Your task to perform on an android device: check data usage Image 0: 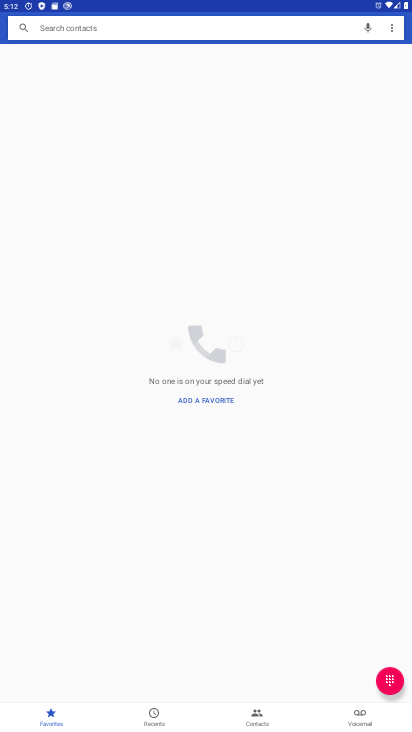
Step 0: press home button
Your task to perform on an android device: check data usage Image 1: 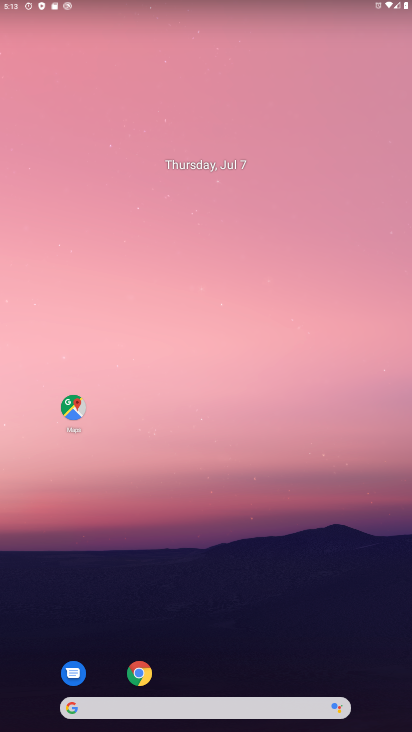
Step 1: drag from (103, 719) to (123, 106)
Your task to perform on an android device: check data usage Image 2: 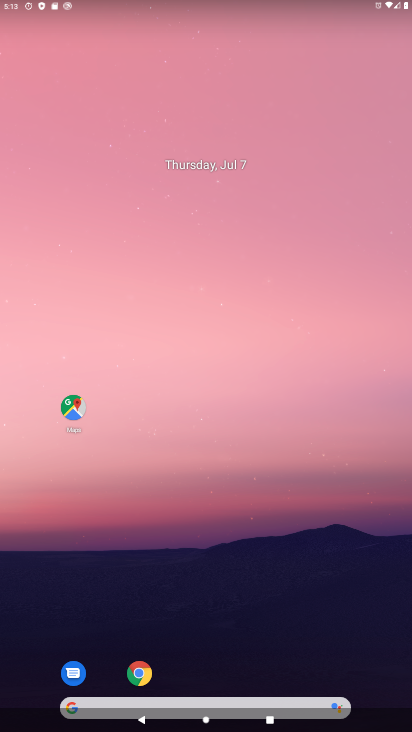
Step 2: drag from (219, 692) to (248, 65)
Your task to perform on an android device: check data usage Image 3: 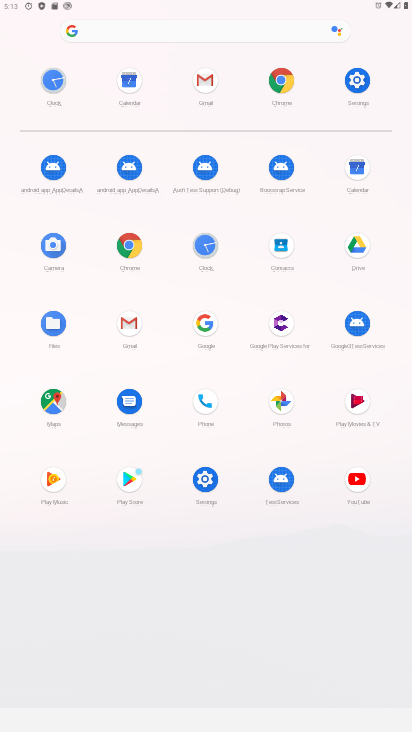
Step 3: click (360, 75)
Your task to perform on an android device: check data usage Image 4: 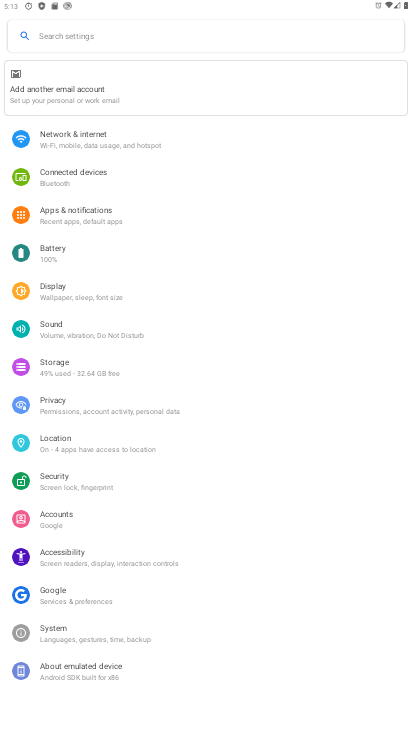
Step 4: click (89, 131)
Your task to perform on an android device: check data usage Image 5: 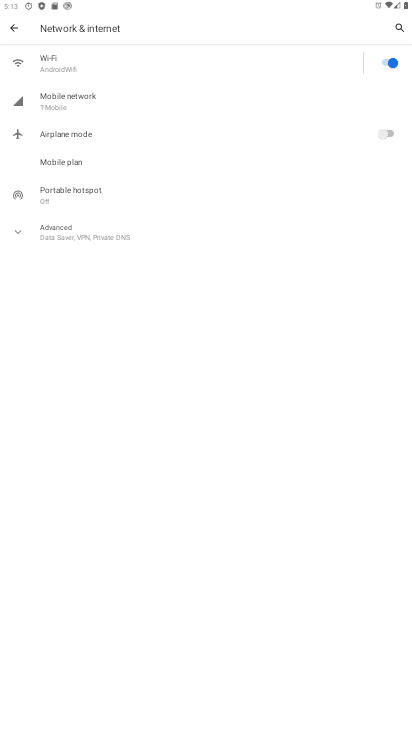
Step 5: click (106, 101)
Your task to perform on an android device: check data usage Image 6: 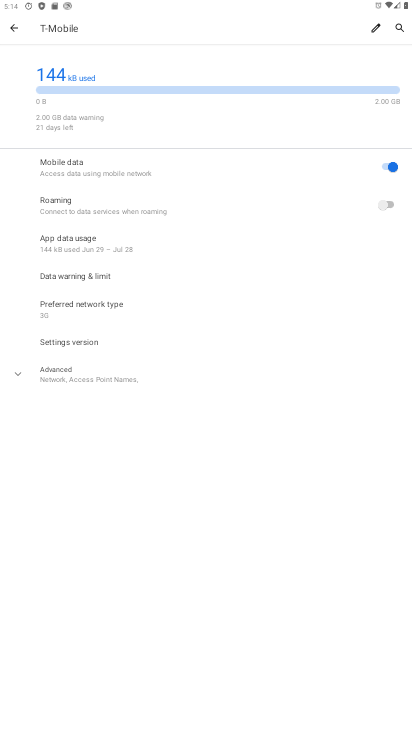
Step 6: task complete